Your task to perform on an android device: Open internet settings Image 0: 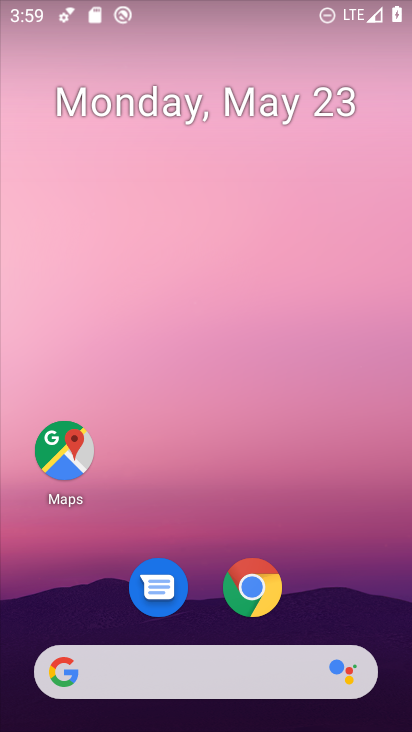
Step 0: drag from (206, 607) to (240, 43)
Your task to perform on an android device: Open internet settings Image 1: 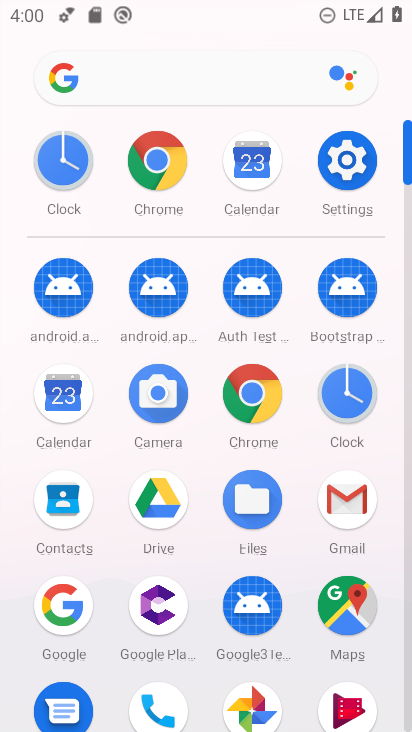
Step 1: press home button
Your task to perform on an android device: Open internet settings Image 2: 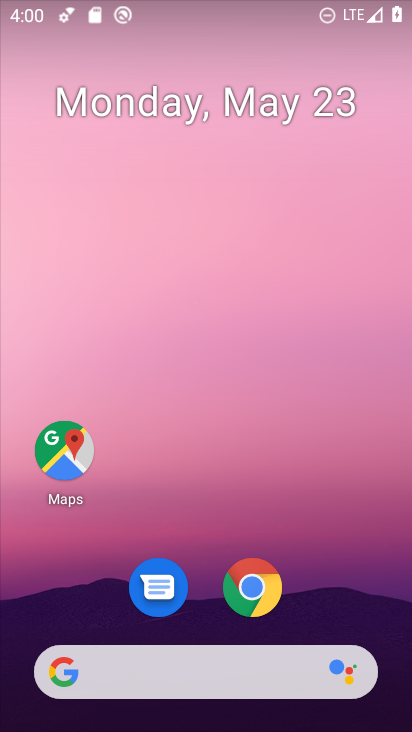
Step 2: drag from (216, 561) to (183, 28)
Your task to perform on an android device: Open internet settings Image 3: 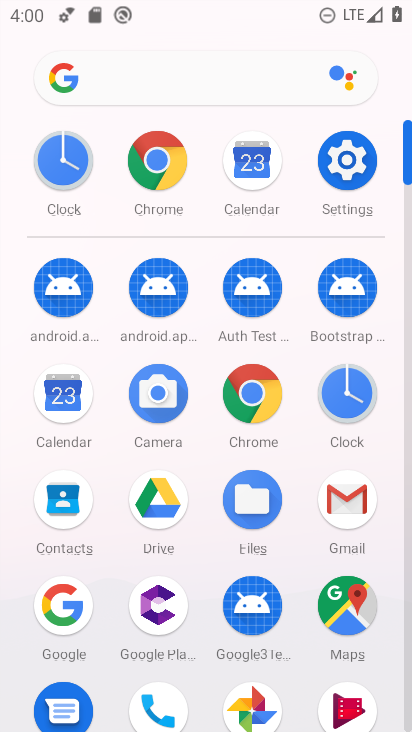
Step 3: click (335, 164)
Your task to perform on an android device: Open internet settings Image 4: 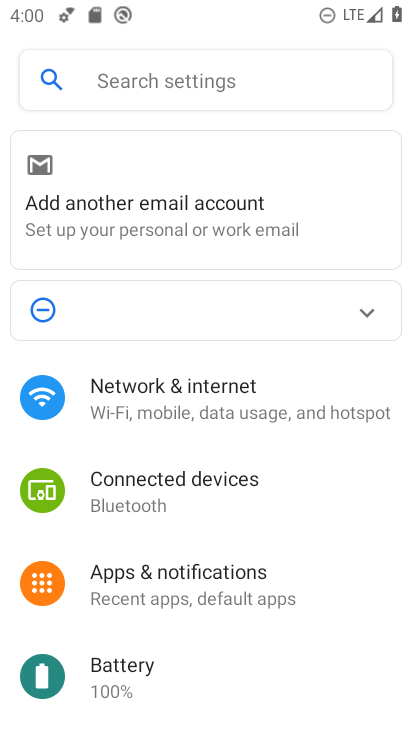
Step 4: drag from (219, 542) to (235, 395)
Your task to perform on an android device: Open internet settings Image 5: 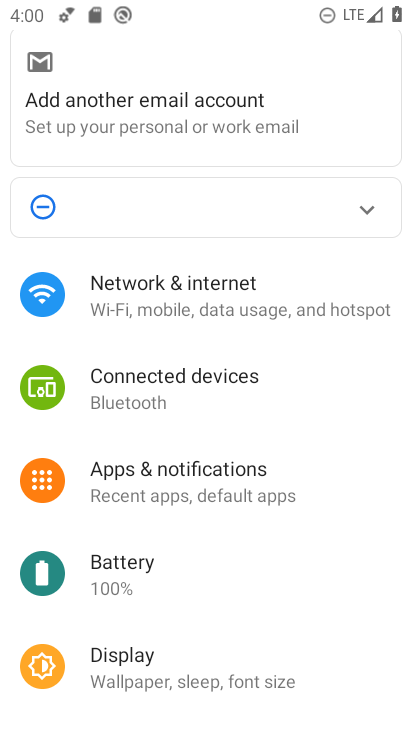
Step 5: click (181, 296)
Your task to perform on an android device: Open internet settings Image 6: 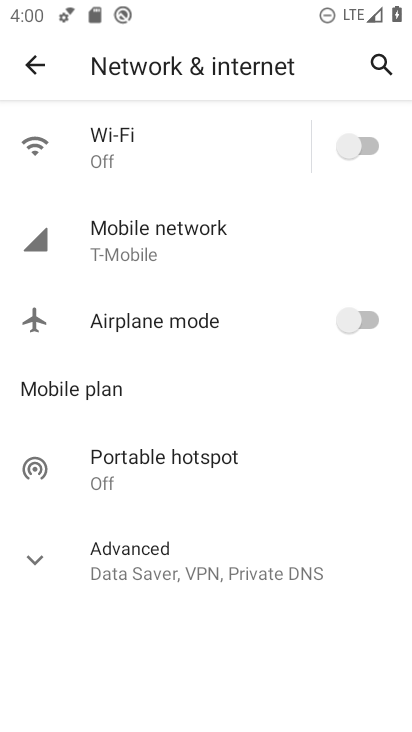
Step 6: task complete